Your task to perform on an android device: toggle wifi Image 0: 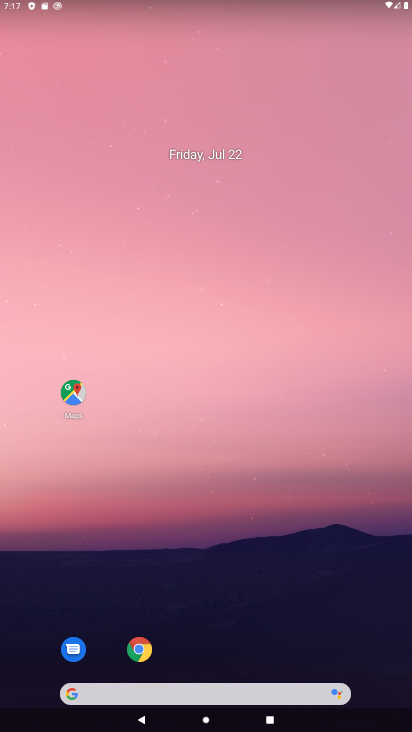
Step 0: drag from (335, 2) to (296, 285)
Your task to perform on an android device: toggle wifi Image 1: 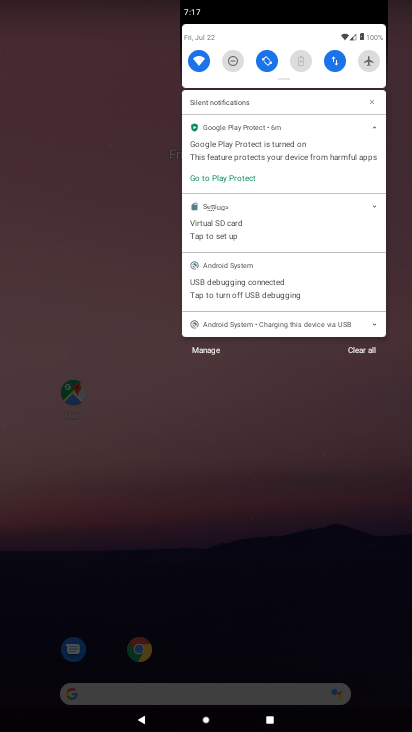
Step 1: click (215, 386)
Your task to perform on an android device: toggle wifi Image 2: 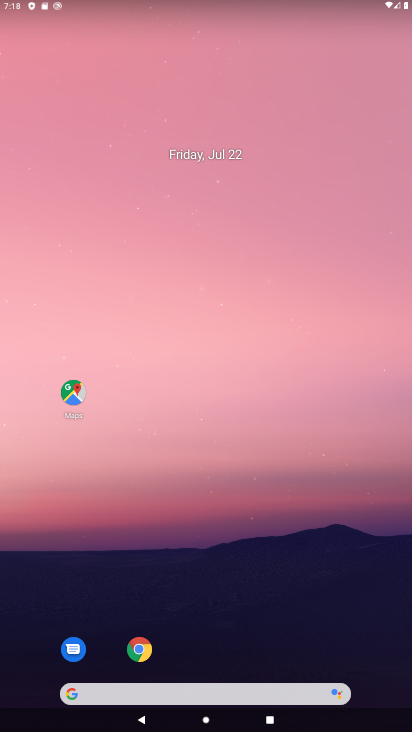
Step 2: task complete